Your task to perform on an android device: turn pop-ups off in chrome Image 0: 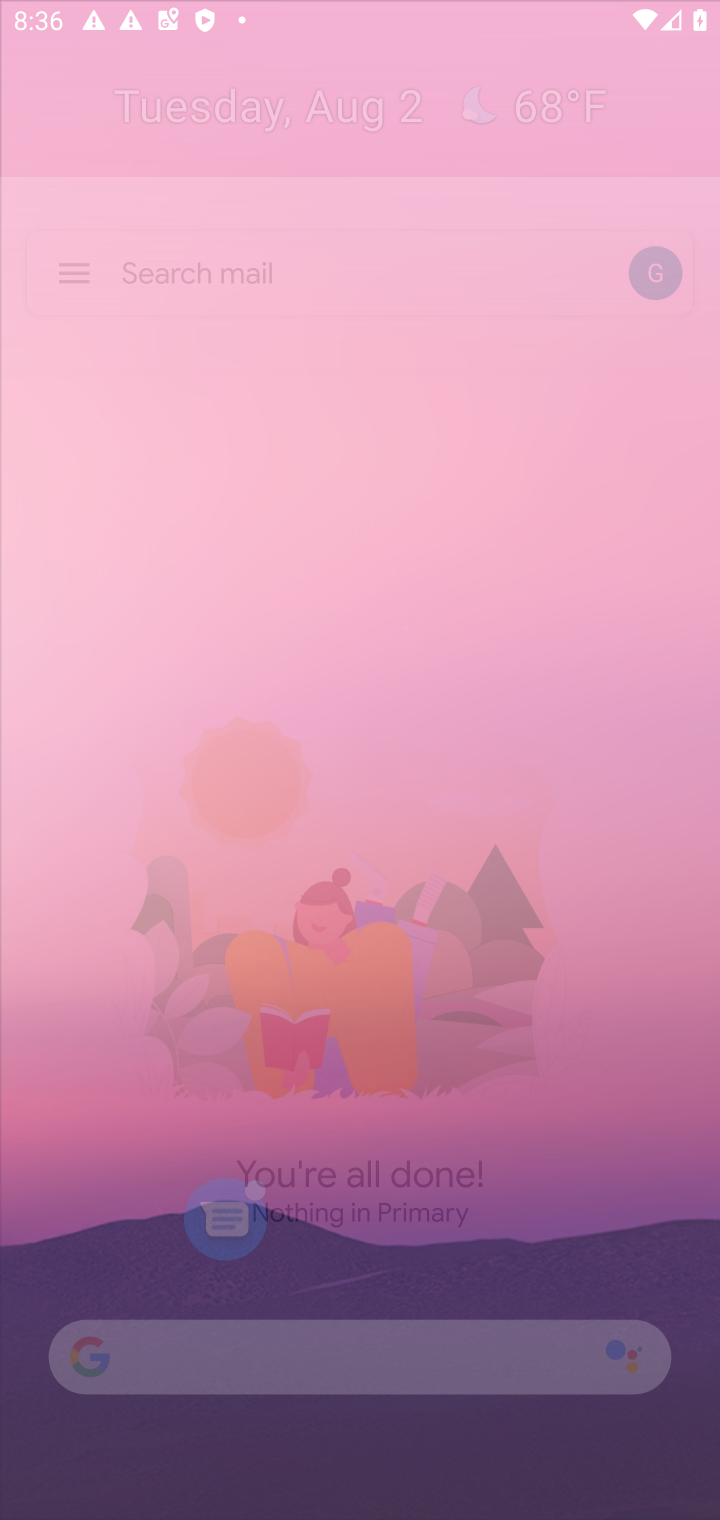
Step 0: press home button
Your task to perform on an android device: turn pop-ups off in chrome Image 1: 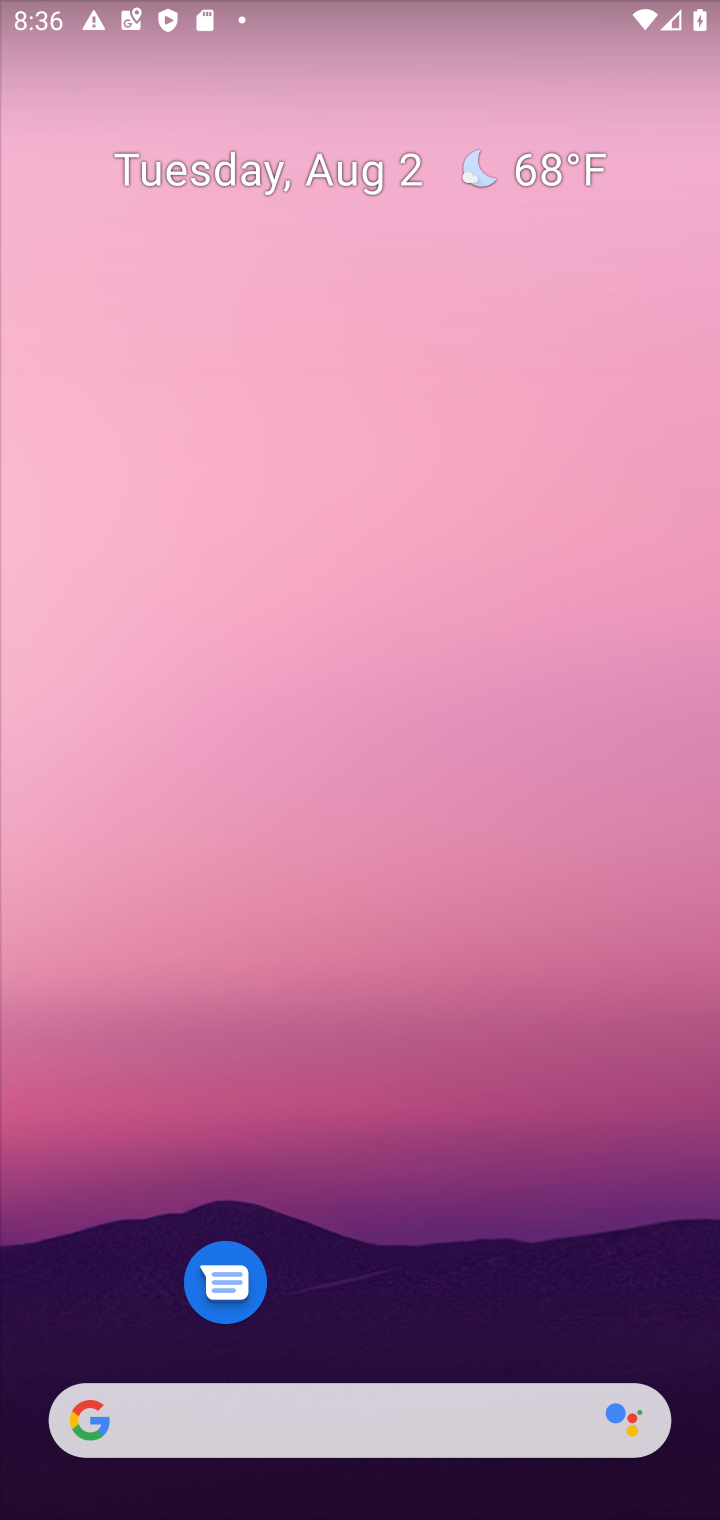
Step 1: drag from (402, 1311) to (276, 61)
Your task to perform on an android device: turn pop-ups off in chrome Image 2: 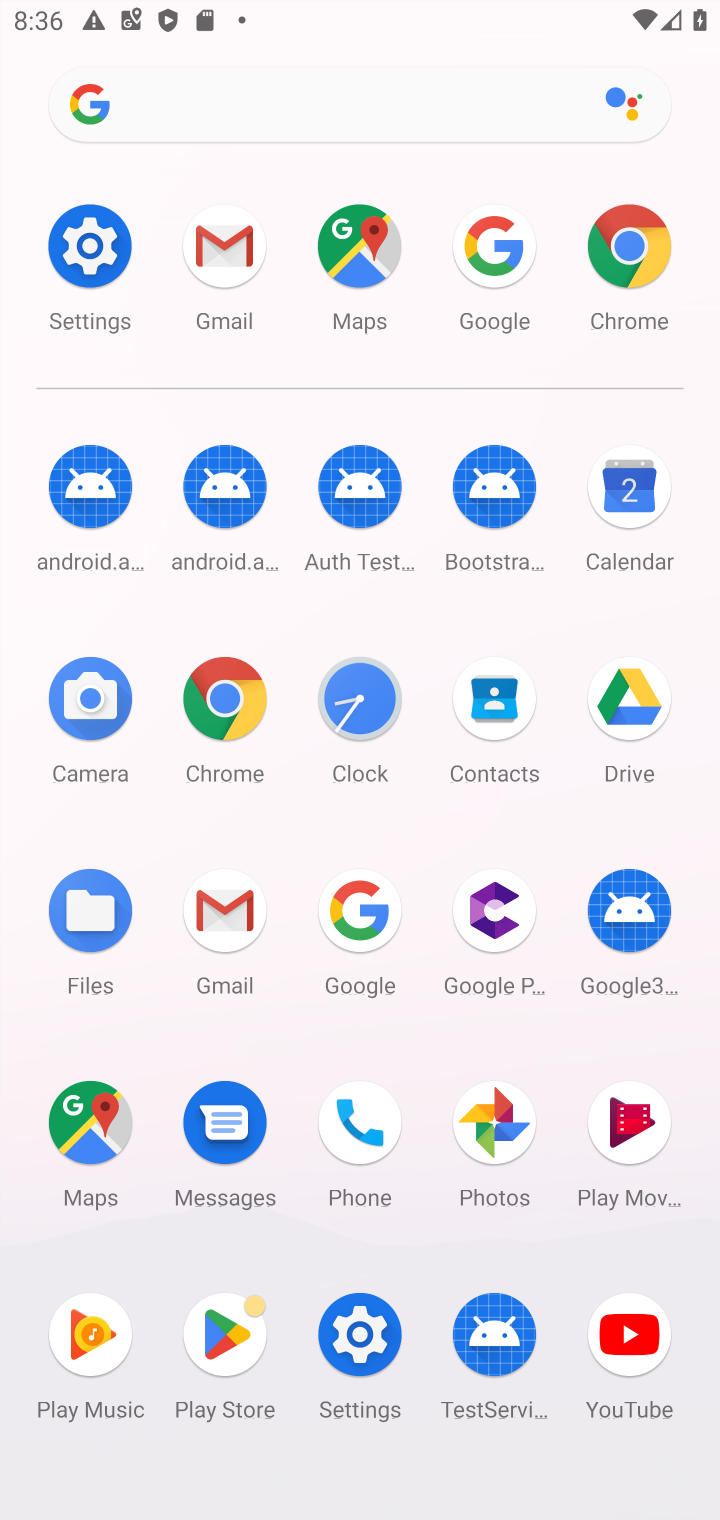
Step 2: click (238, 719)
Your task to perform on an android device: turn pop-ups off in chrome Image 3: 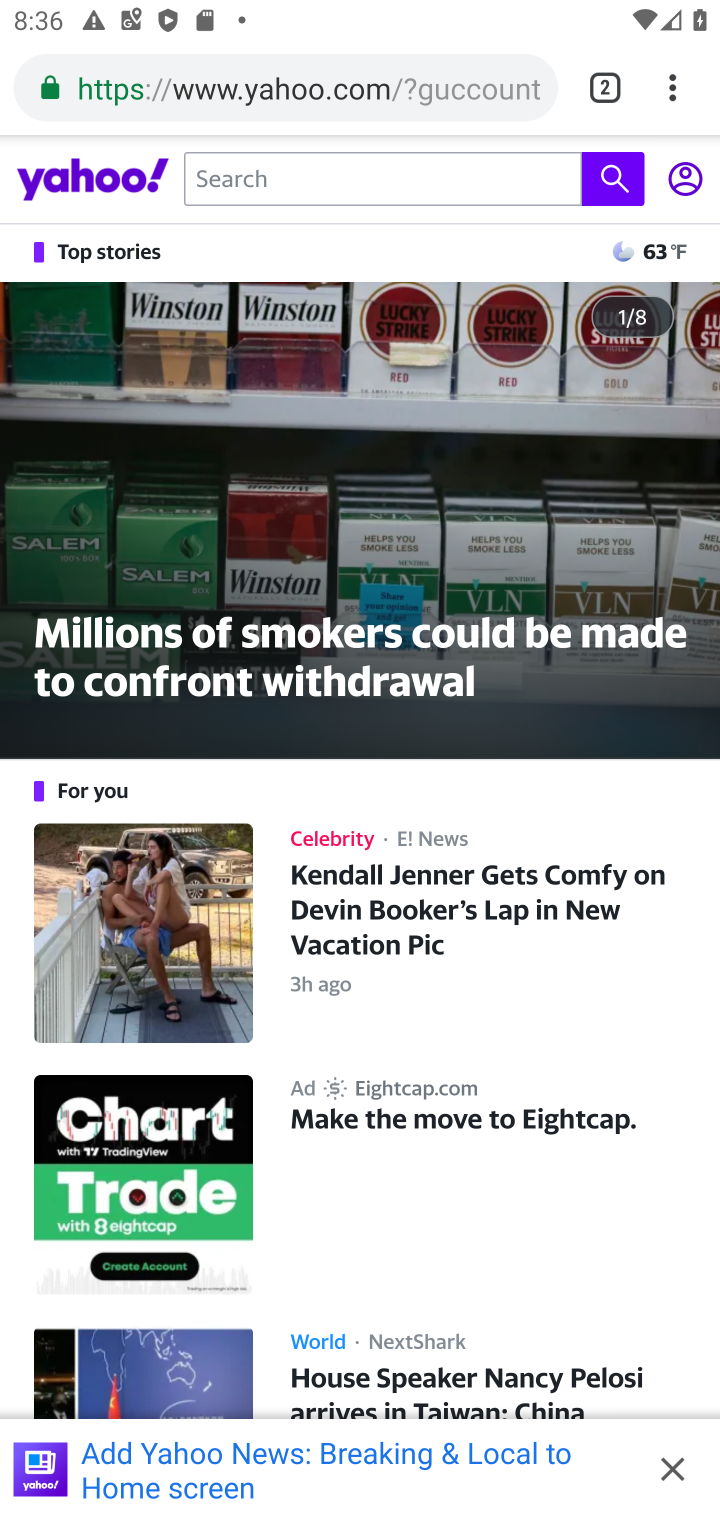
Step 3: click (662, 90)
Your task to perform on an android device: turn pop-ups off in chrome Image 4: 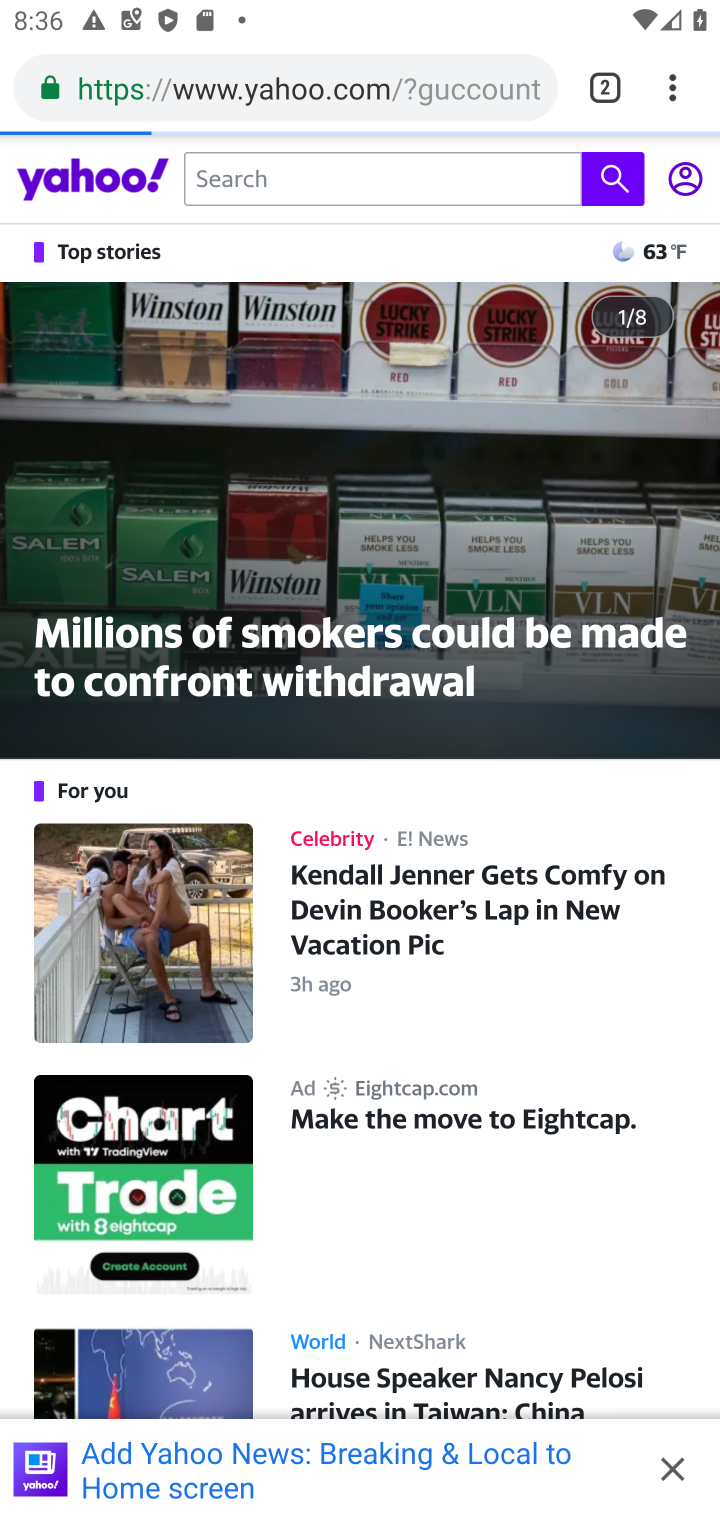
Step 4: drag from (666, 89) to (396, 1047)
Your task to perform on an android device: turn pop-ups off in chrome Image 5: 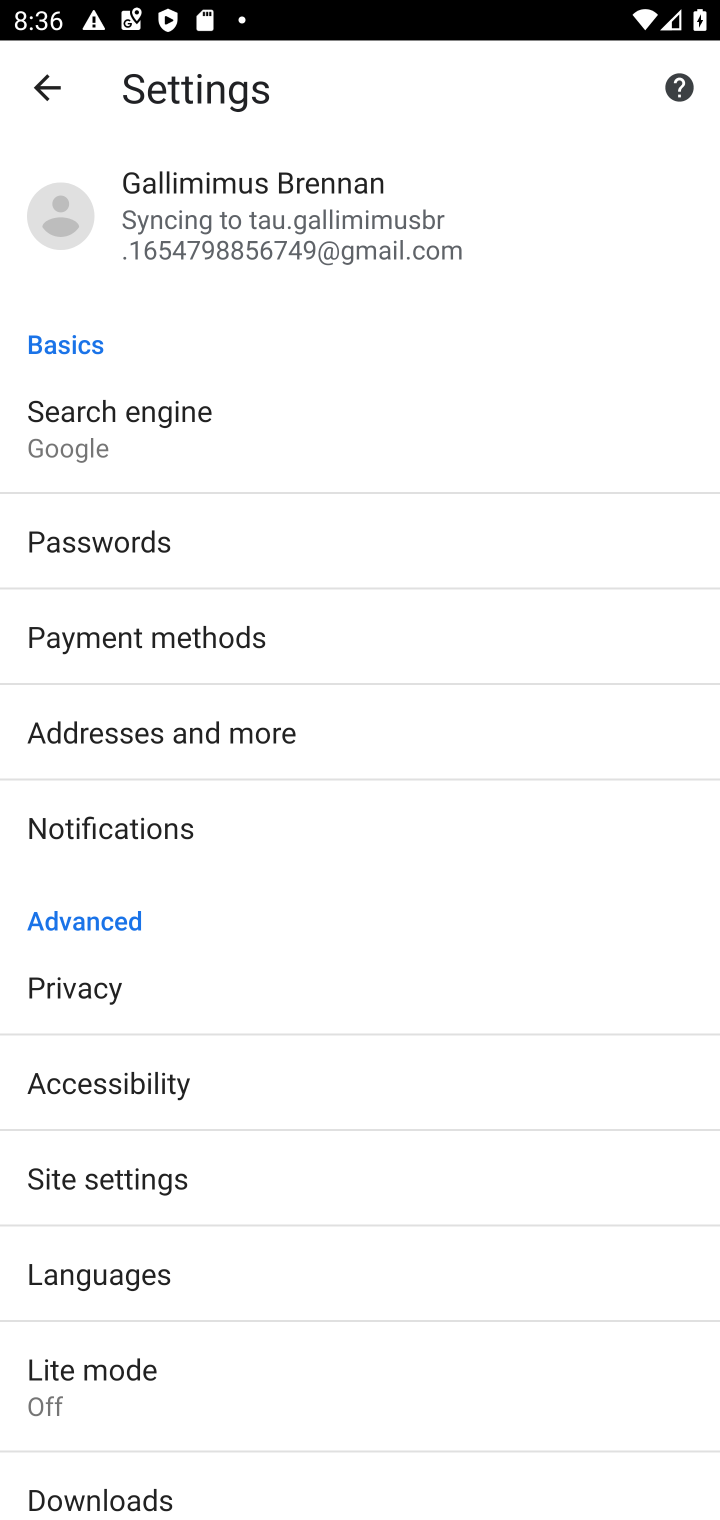
Step 5: drag from (351, 1107) to (265, 326)
Your task to perform on an android device: turn pop-ups off in chrome Image 6: 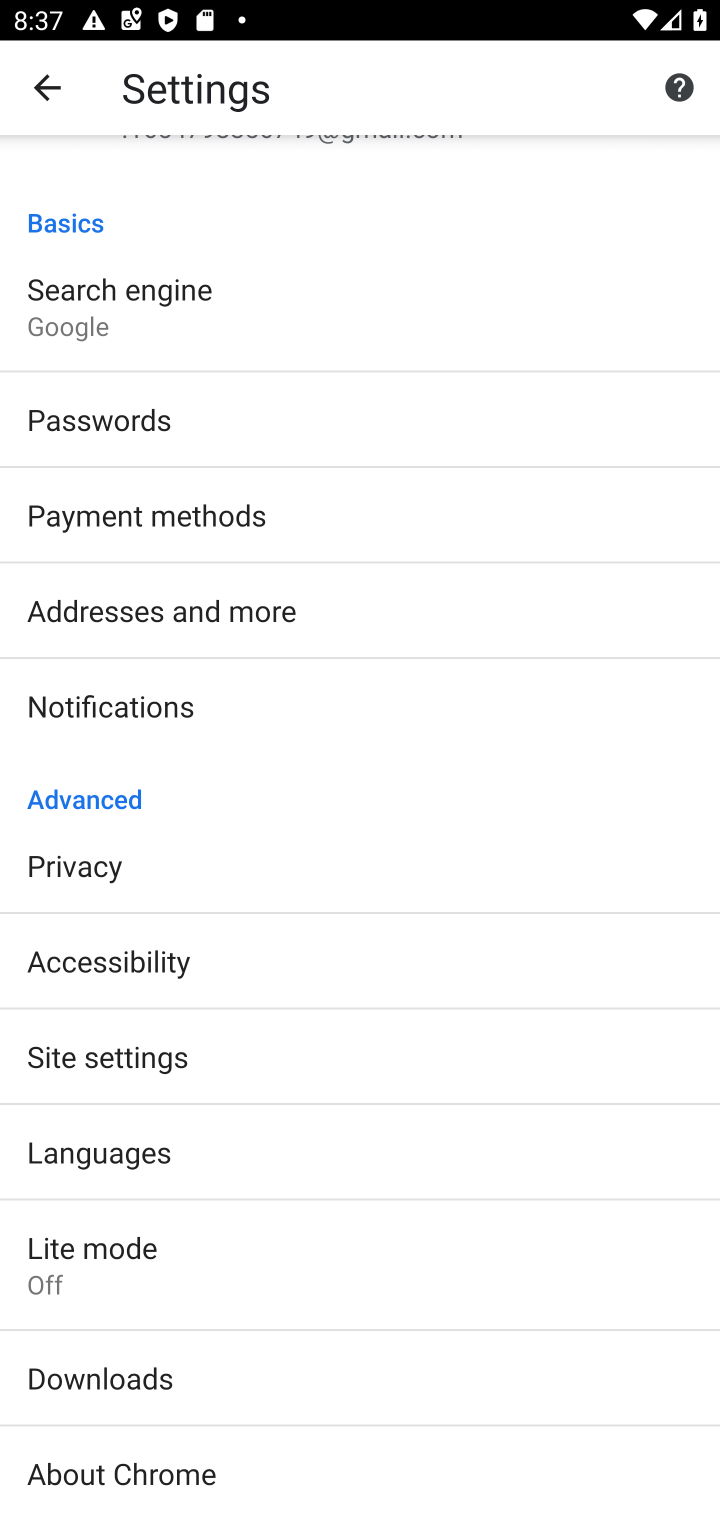
Step 6: click (149, 1085)
Your task to perform on an android device: turn pop-ups off in chrome Image 7: 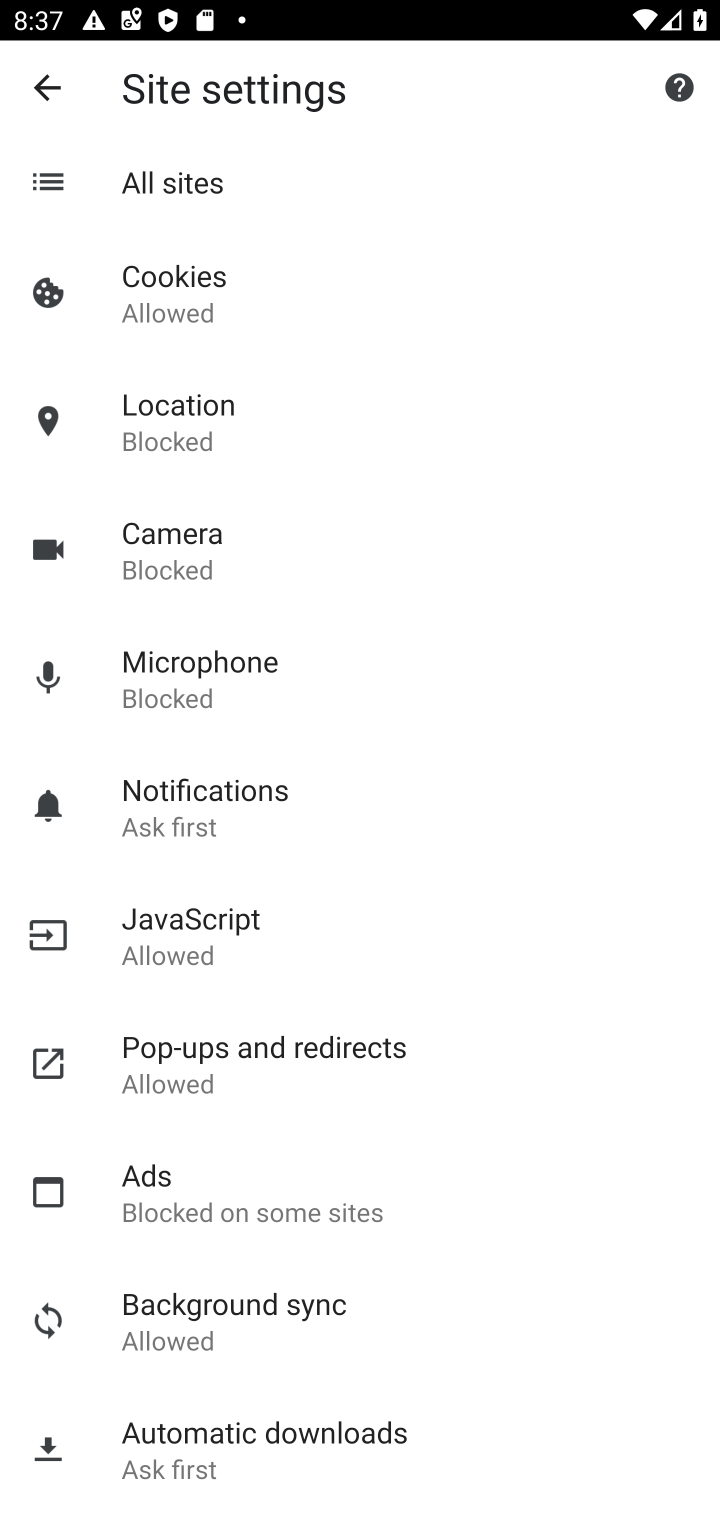
Step 7: click (300, 1033)
Your task to perform on an android device: turn pop-ups off in chrome Image 8: 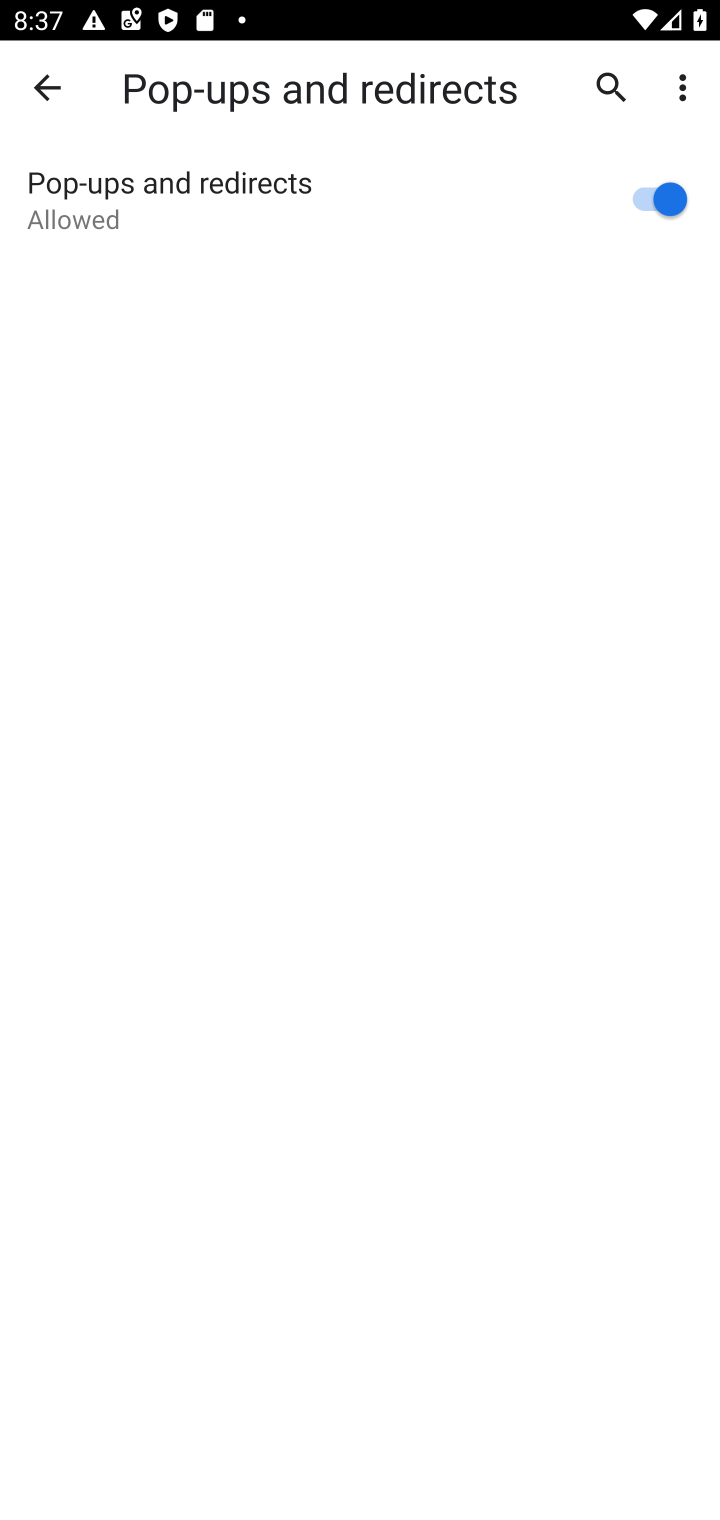
Step 8: click (668, 202)
Your task to perform on an android device: turn pop-ups off in chrome Image 9: 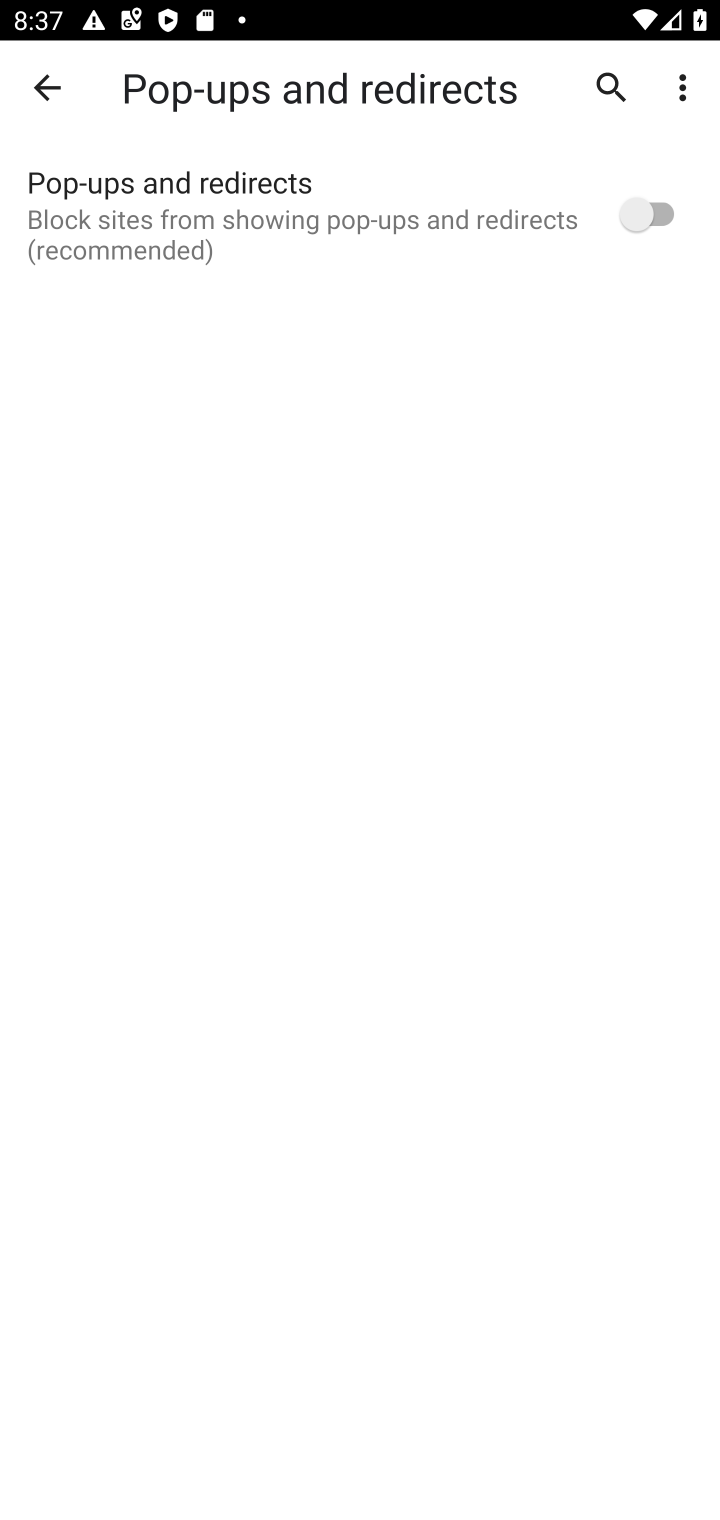
Step 9: task complete